Your task to perform on an android device: stop showing notifications on the lock screen Image 0: 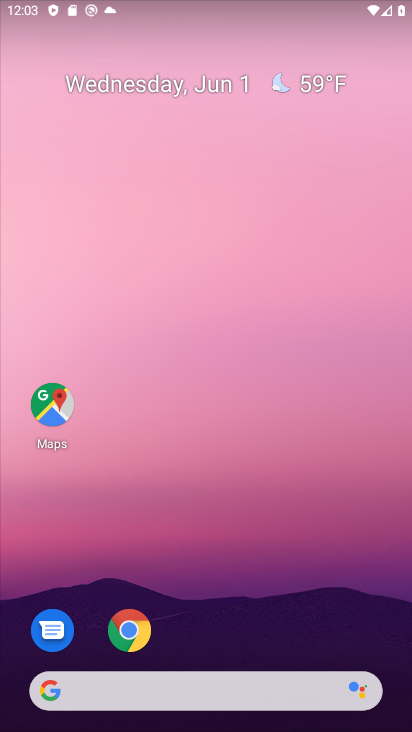
Step 0: drag from (200, 584) to (202, 215)
Your task to perform on an android device: stop showing notifications on the lock screen Image 1: 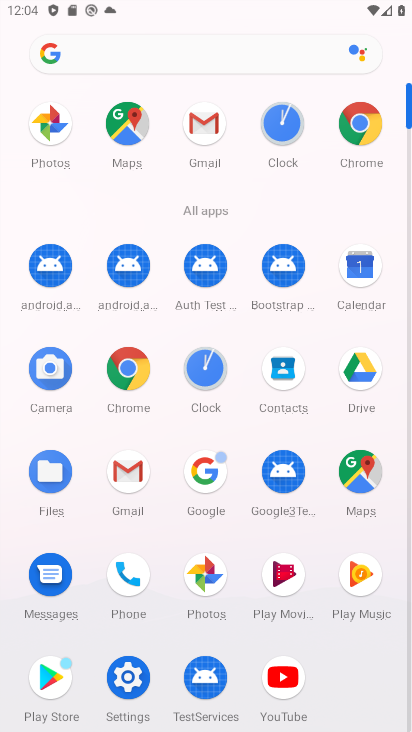
Step 1: click (121, 665)
Your task to perform on an android device: stop showing notifications on the lock screen Image 2: 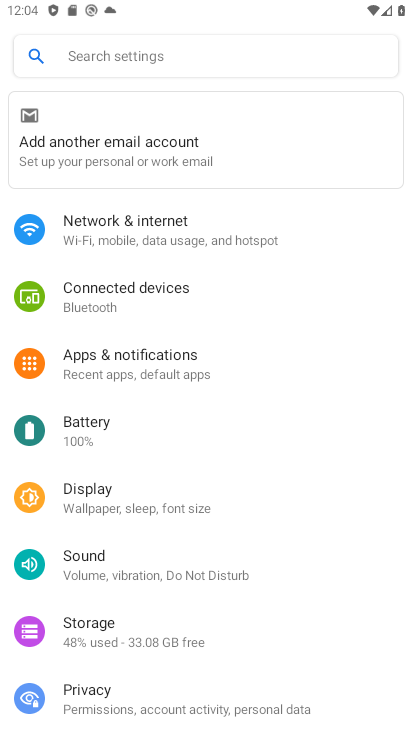
Step 2: click (139, 361)
Your task to perform on an android device: stop showing notifications on the lock screen Image 3: 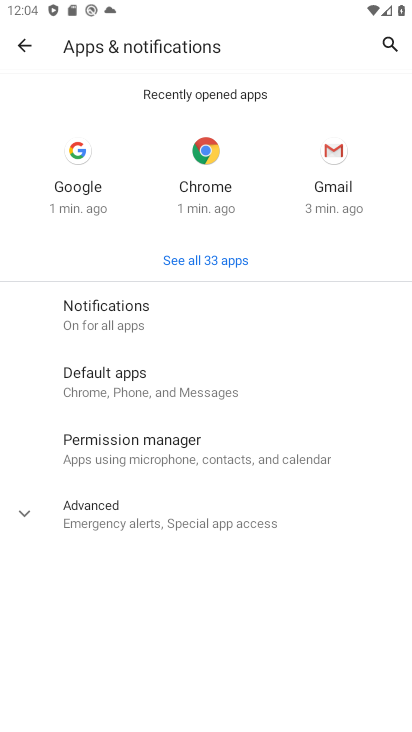
Step 3: click (165, 320)
Your task to perform on an android device: stop showing notifications on the lock screen Image 4: 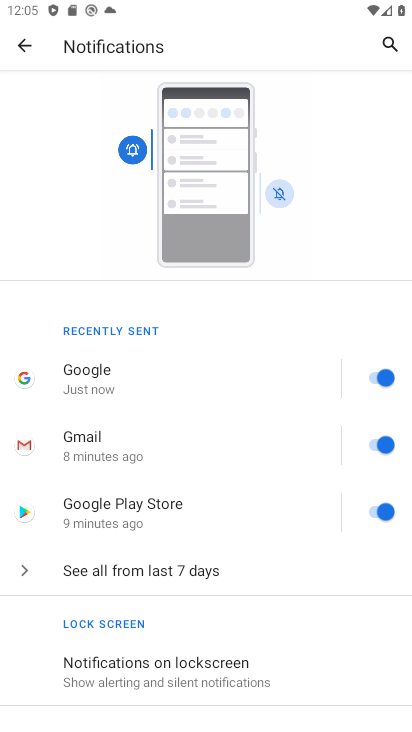
Step 4: drag from (199, 647) to (185, 449)
Your task to perform on an android device: stop showing notifications on the lock screen Image 5: 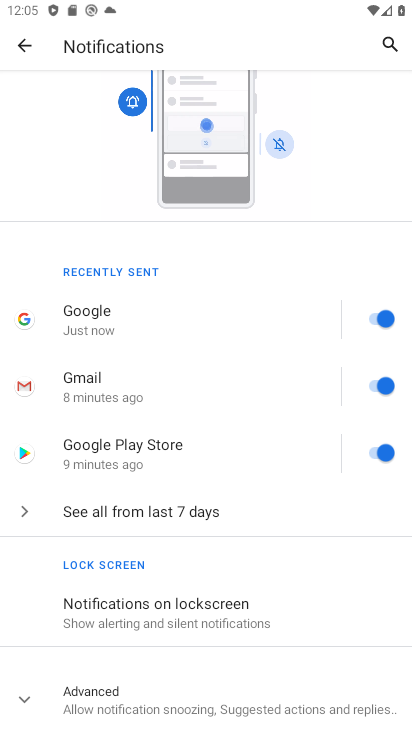
Step 5: click (185, 615)
Your task to perform on an android device: stop showing notifications on the lock screen Image 6: 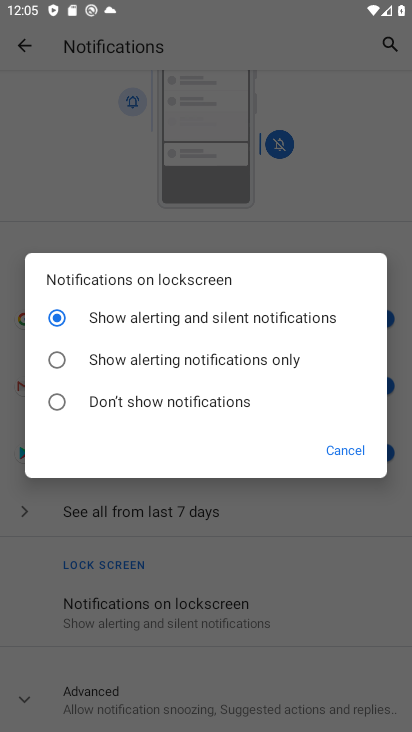
Step 6: click (120, 399)
Your task to perform on an android device: stop showing notifications on the lock screen Image 7: 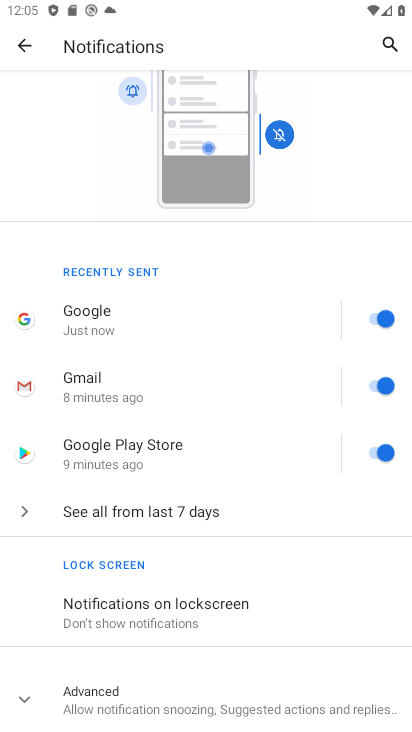
Step 7: task complete